Your task to perform on an android device: Open Chrome and go to the settings page Image 0: 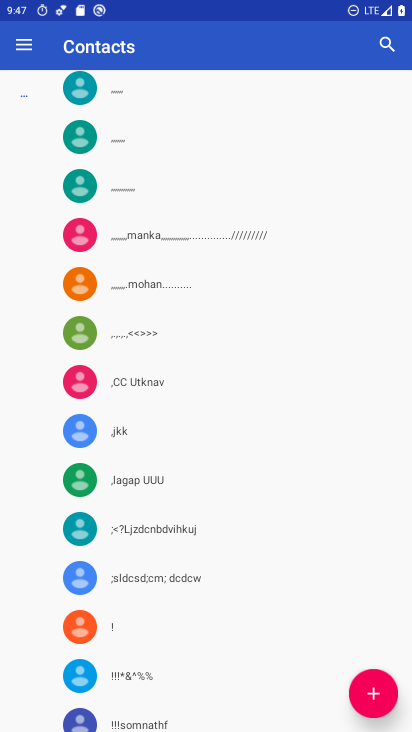
Step 0: press home button
Your task to perform on an android device: Open Chrome and go to the settings page Image 1: 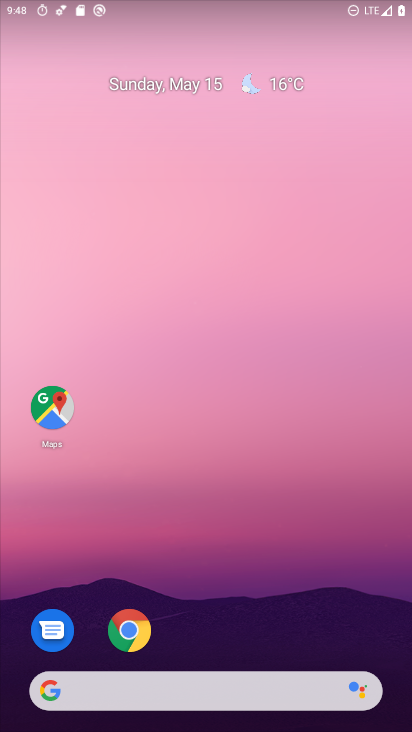
Step 1: drag from (233, 626) to (224, 132)
Your task to perform on an android device: Open Chrome and go to the settings page Image 2: 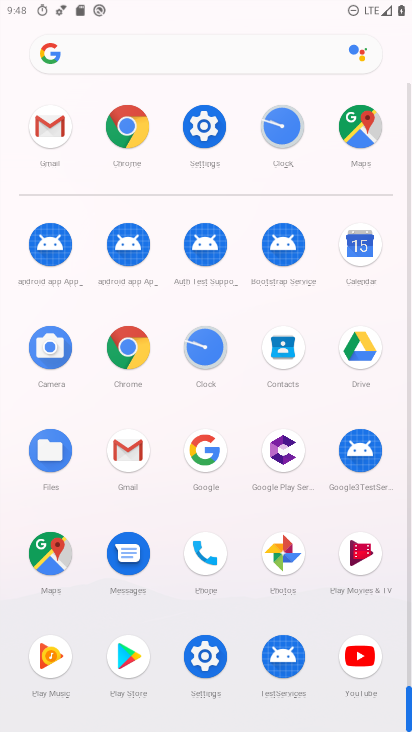
Step 2: click (113, 342)
Your task to perform on an android device: Open Chrome and go to the settings page Image 3: 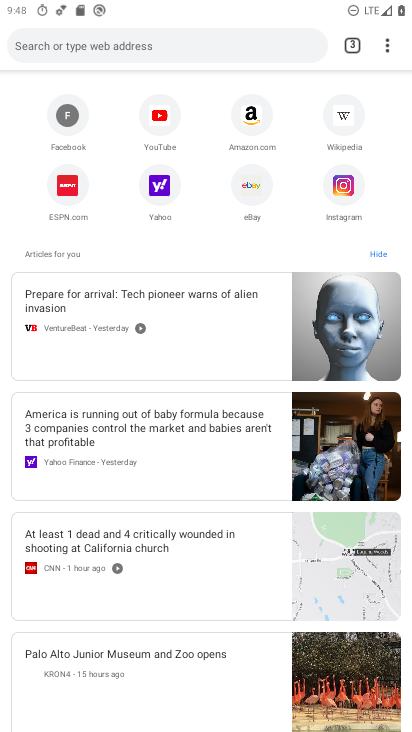
Step 3: task complete